Your task to perform on an android device: What's the weather today? Image 0: 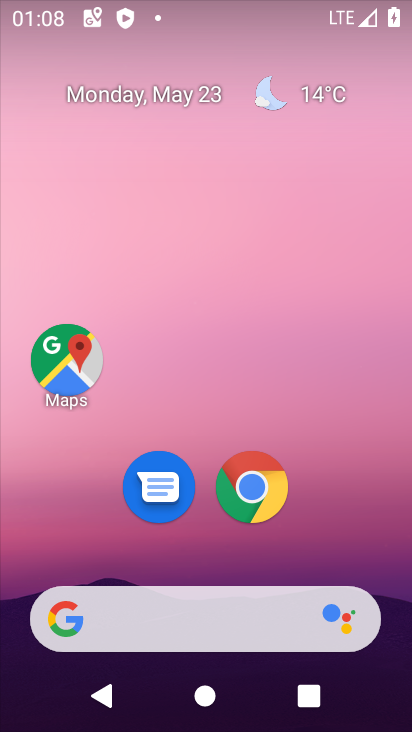
Step 0: click (323, 92)
Your task to perform on an android device: What's the weather today? Image 1: 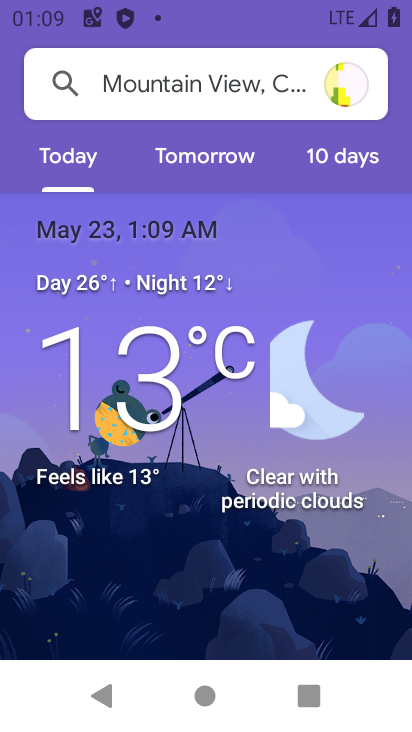
Step 1: task complete